Your task to perform on an android device: move an email to a new category in the gmail app Image 0: 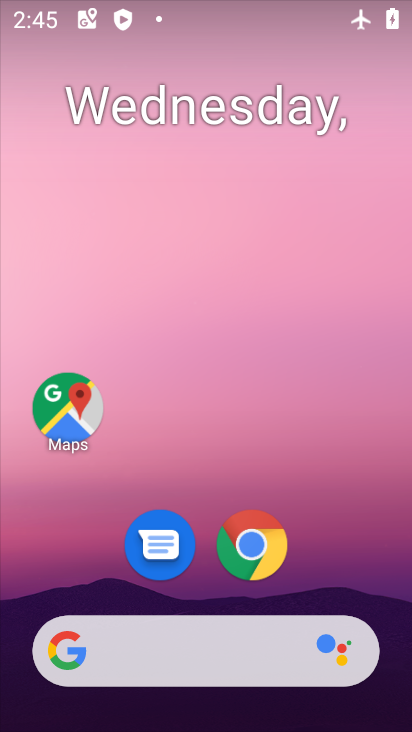
Step 0: drag from (336, 550) to (320, 160)
Your task to perform on an android device: move an email to a new category in the gmail app Image 1: 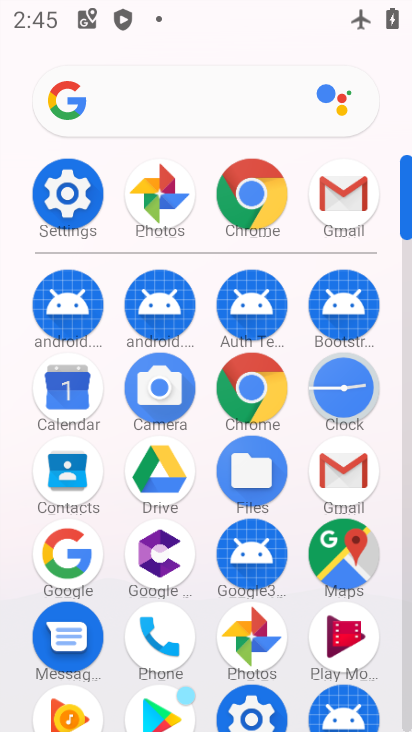
Step 1: click (353, 200)
Your task to perform on an android device: move an email to a new category in the gmail app Image 2: 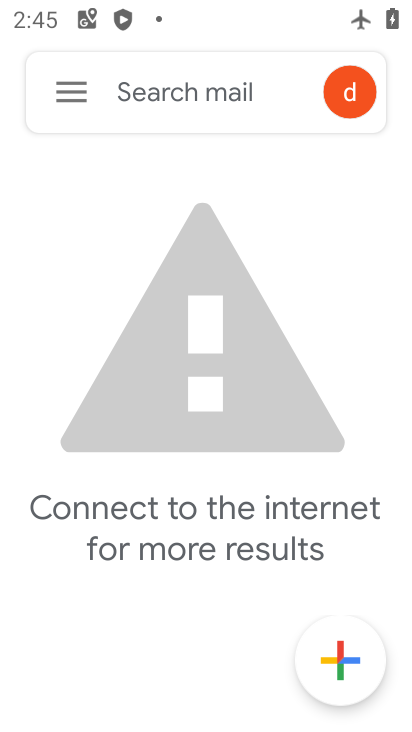
Step 2: click (68, 90)
Your task to perform on an android device: move an email to a new category in the gmail app Image 3: 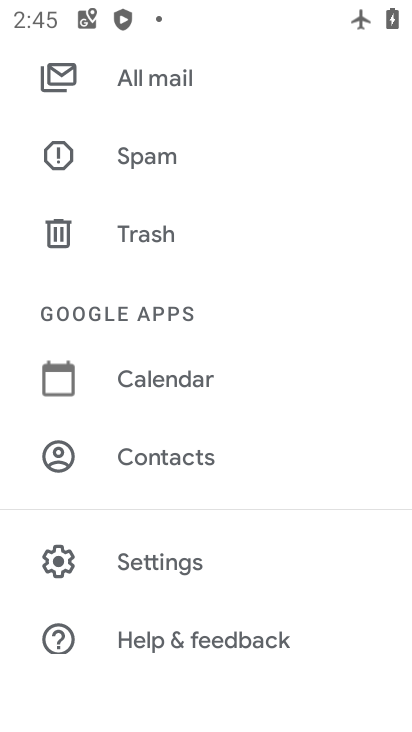
Step 3: click (151, 84)
Your task to perform on an android device: move an email to a new category in the gmail app Image 4: 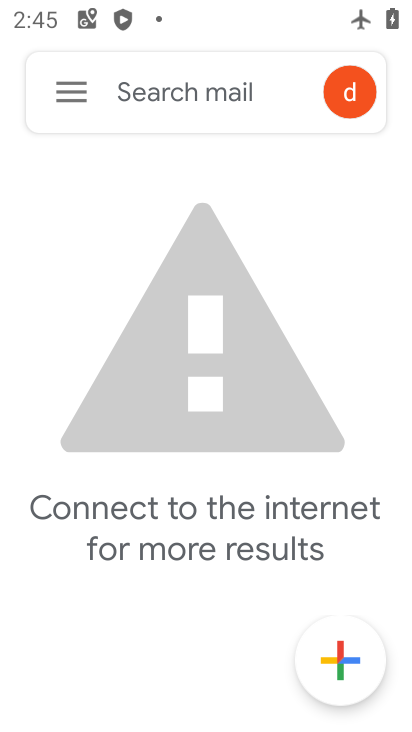
Step 4: task complete